Your task to perform on an android device: open app "Google Keep" Image 0: 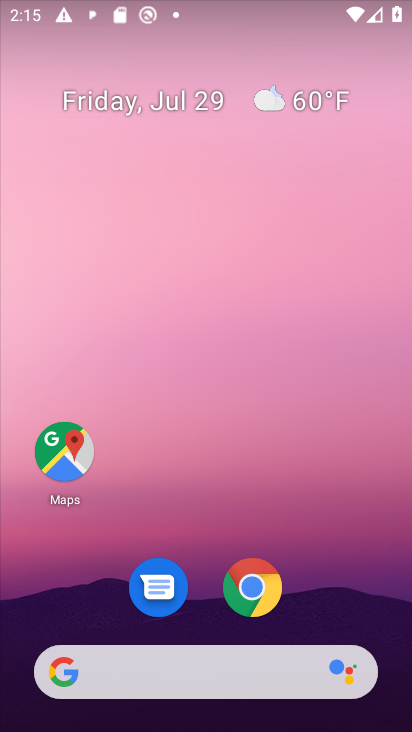
Step 0: drag from (133, 701) to (408, 2)
Your task to perform on an android device: open app "Google Keep" Image 1: 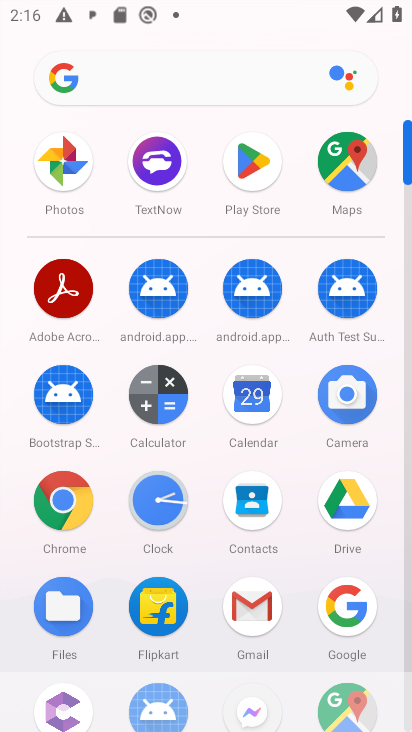
Step 1: click (251, 174)
Your task to perform on an android device: open app "Google Keep" Image 2: 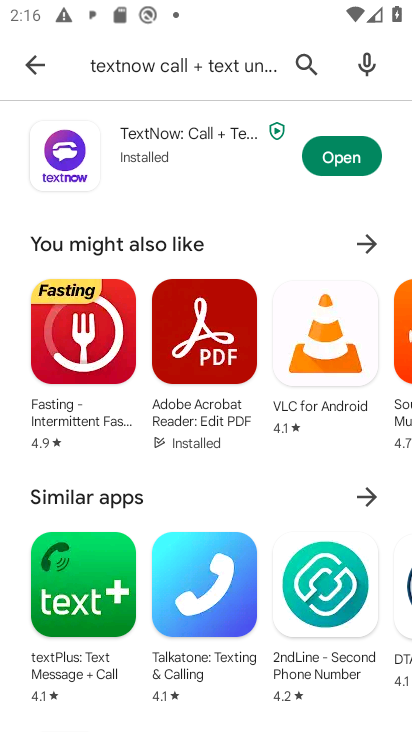
Step 2: click (296, 60)
Your task to perform on an android device: open app "Google Keep" Image 3: 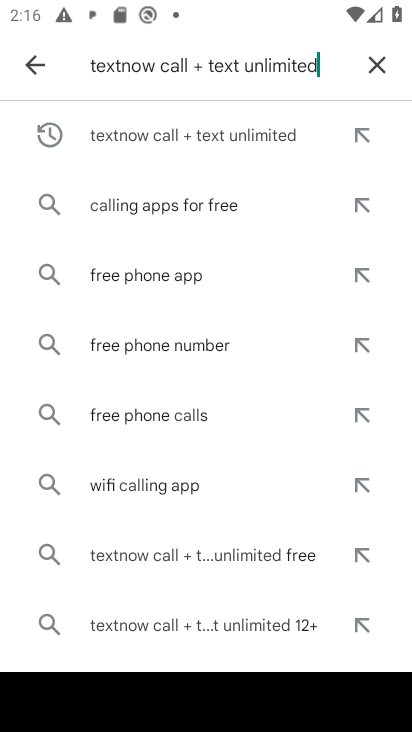
Step 3: click (371, 66)
Your task to perform on an android device: open app "Google Keep" Image 4: 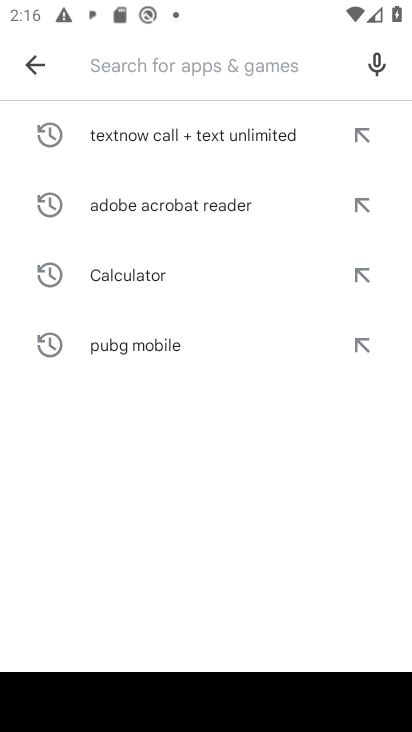
Step 4: type "Google Keep""
Your task to perform on an android device: open app "Google Keep" Image 5: 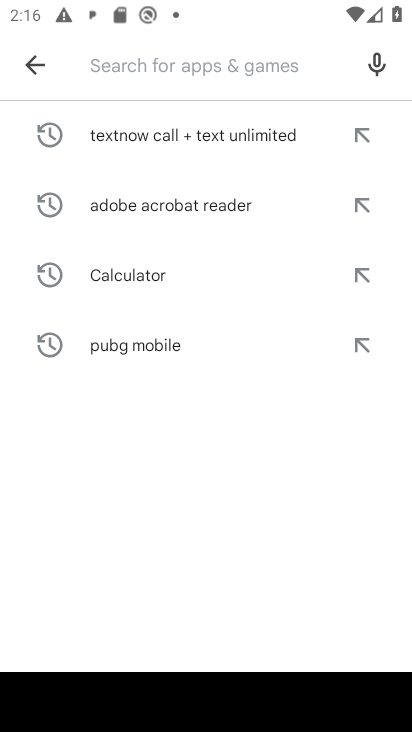
Step 5: type "Google Keep""
Your task to perform on an android device: open app "Google Keep" Image 6: 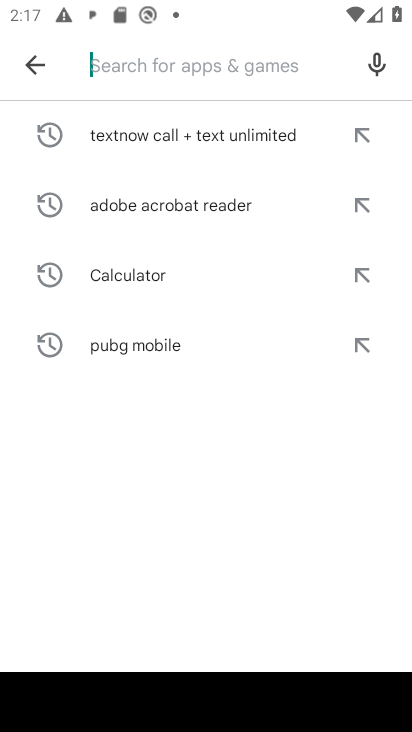
Step 6: type "Google Keep""
Your task to perform on an android device: open app "Google Keep" Image 7: 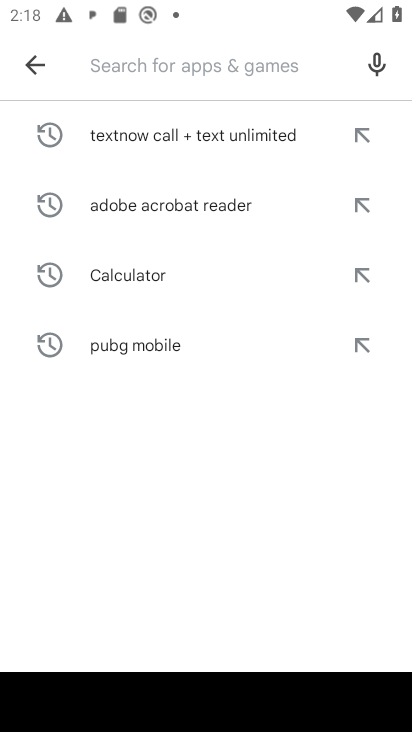
Step 7: type "google keep"
Your task to perform on an android device: open app "Google Keep" Image 8: 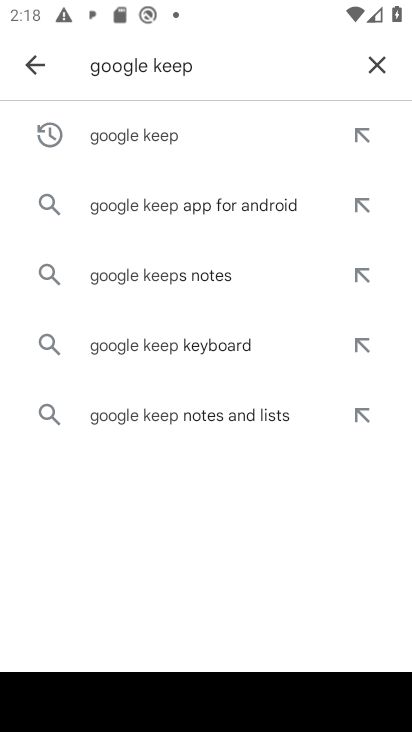
Step 8: click (140, 139)
Your task to perform on an android device: open app "Google Keep" Image 9: 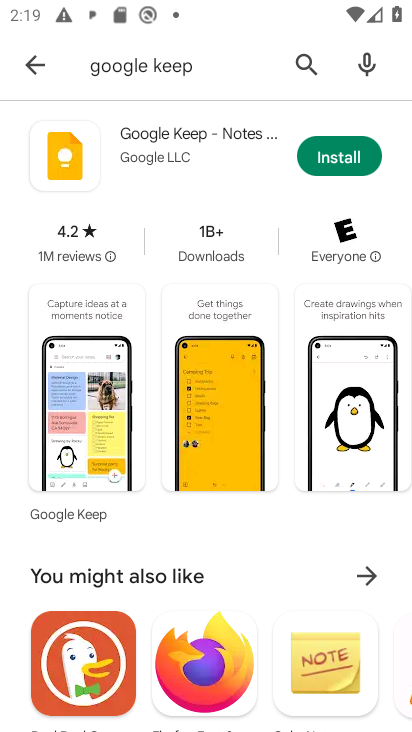
Step 9: task complete